Your task to perform on an android device: change notifications settings Image 0: 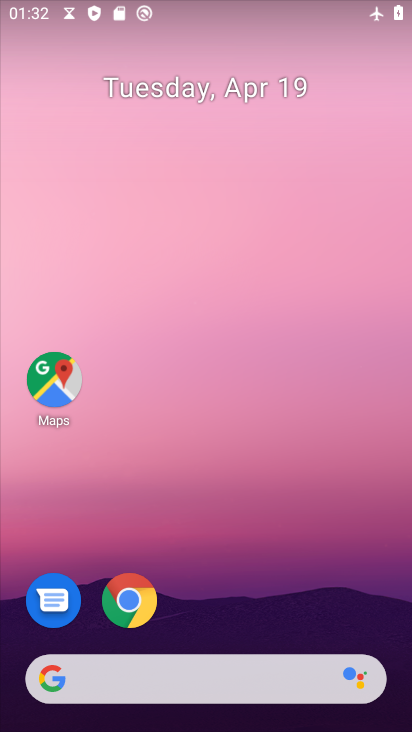
Step 0: drag from (228, 651) to (225, 19)
Your task to perform on an android device: change notifications settings Image 1: 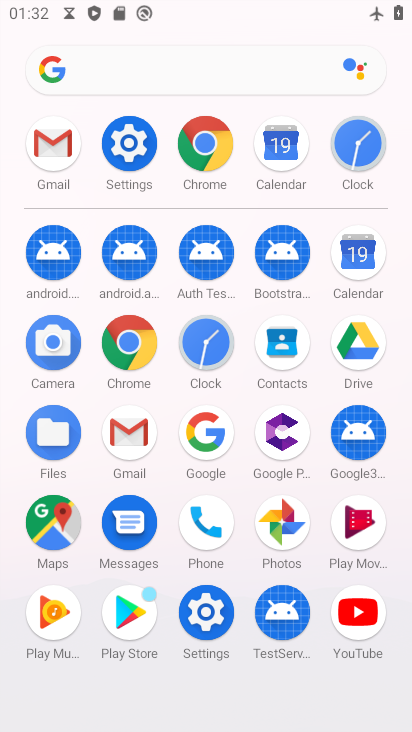
Step 1: click (135, 159)
Your task to perform on an android device: change notifications settings Image 2: 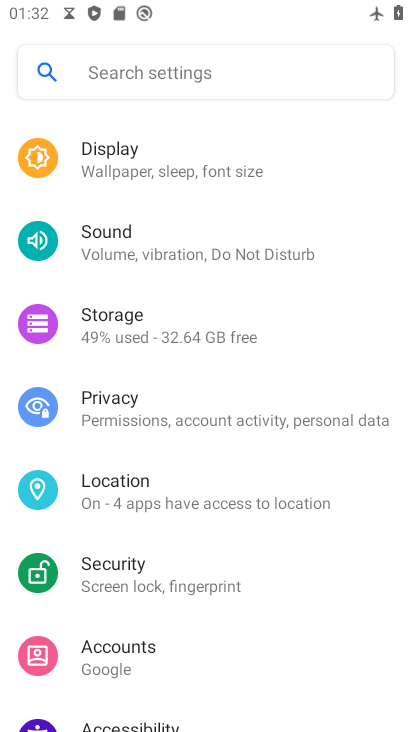
Step 2: drag from (157, 504) to (135, 45)
Your task to perform on an android device: change notifications settings Image 3: 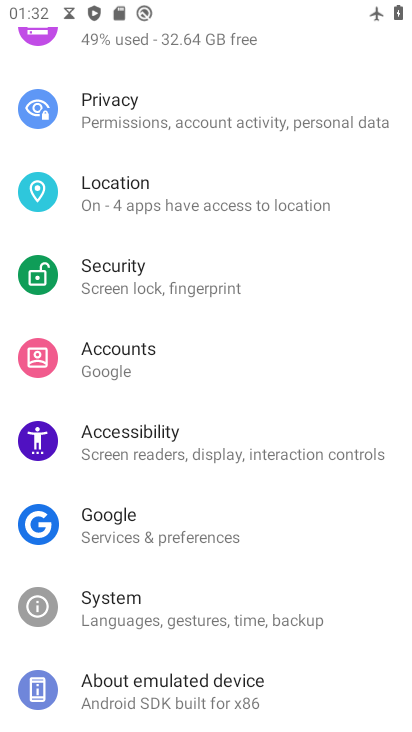
Step 3: drag from (189, 180) to (196, 443)
Your task to perform on an android device: change notifications settings Image 4: 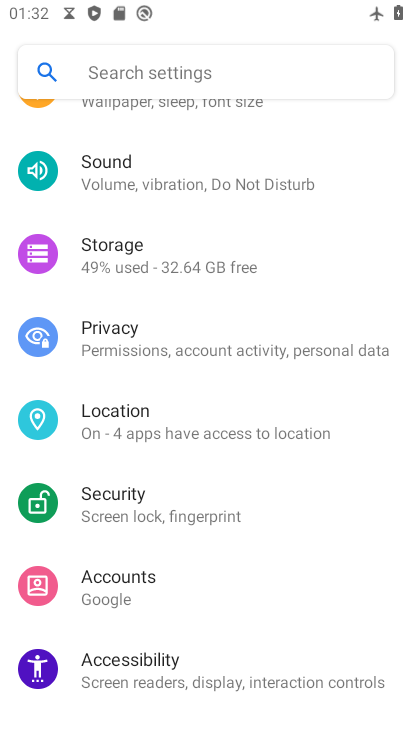
Step 4: drag from (163, 271) to (123, 531)
Your task to perform on an android device: change notifications settings Image 5: 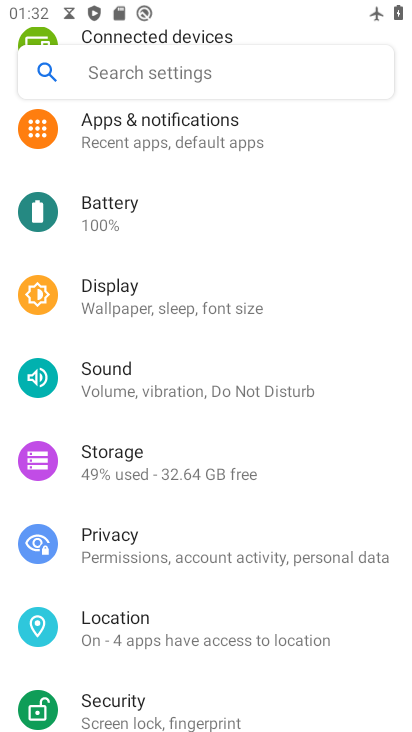
Step 5: click (138, 158)
Your task to perform on an android device: change notifications settings Image 6: 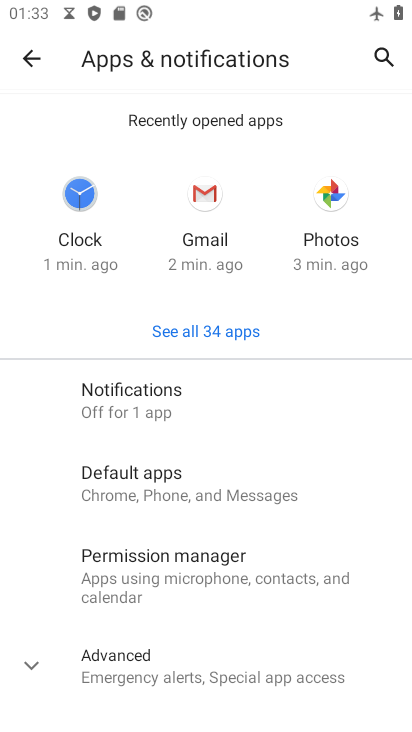
Step 6: click (135, 401)
Your task to perform on an android device: change notifications settings Image 7: 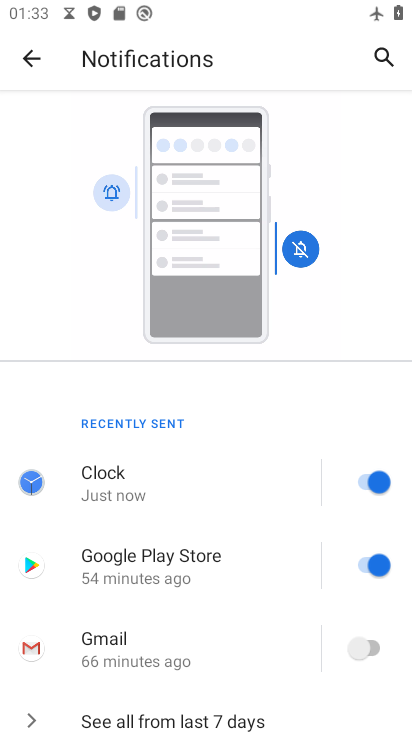
Step 7: drag from (126, 492) to (111, 113)
Your task to perform on an android device: change notifications settings Image 8: 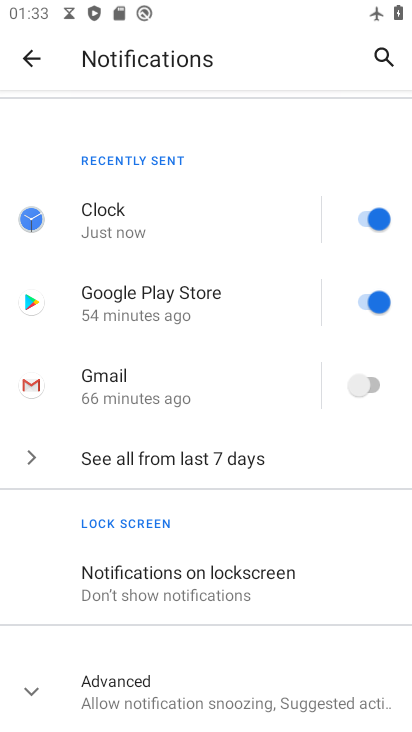
Step 8: click (118, 459)
Your task to perform on an android device: change notifications settings Image 9: 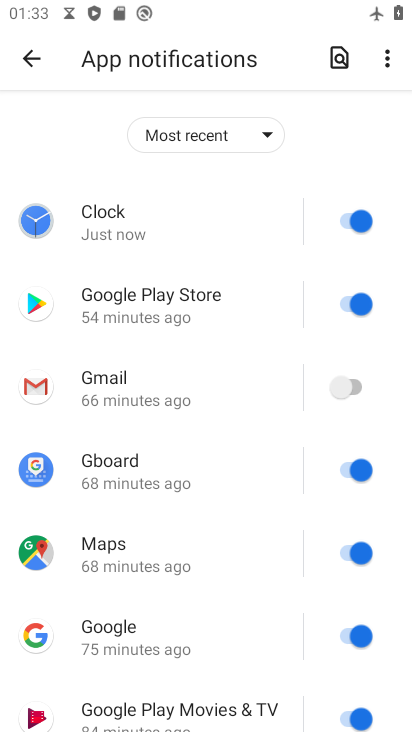
Step 9: task complete